Your task to perform on an android device: Open eBay Image 0: 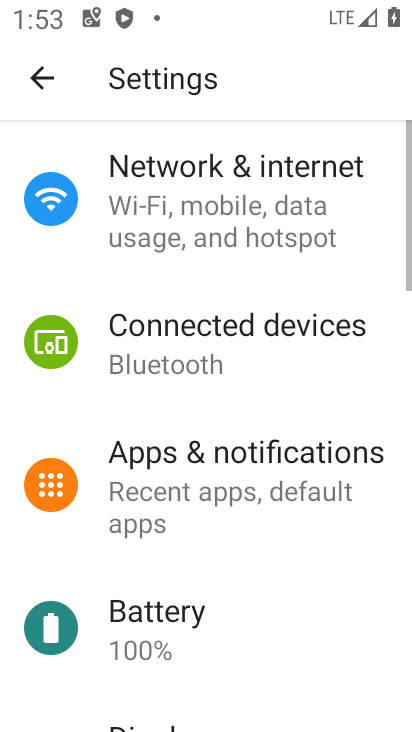
Step 0: press home button
Your task to perform on an android device: Open eBay Image 1: 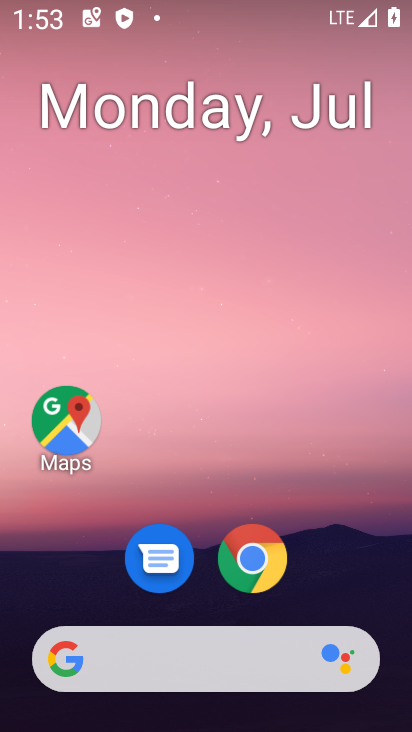
Step 1: drag from (367, 586) to (381, 109)
Your task to perform on an android device: Open eBay Image 2: 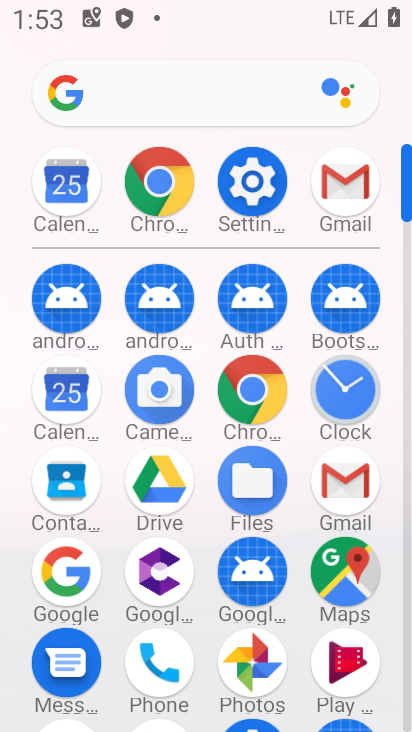
Step 2: click (263, 380)
Your task to perform on an android device: Open eBay Image 3: 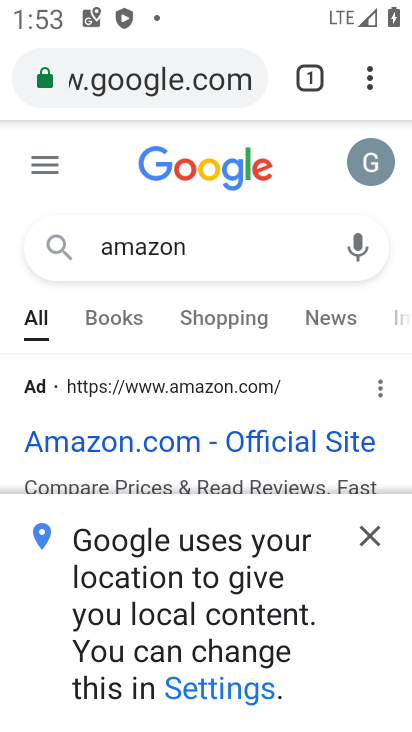
Step 3: click (199, 81)
Your task to perform on an android device: Open eBay Image 4: 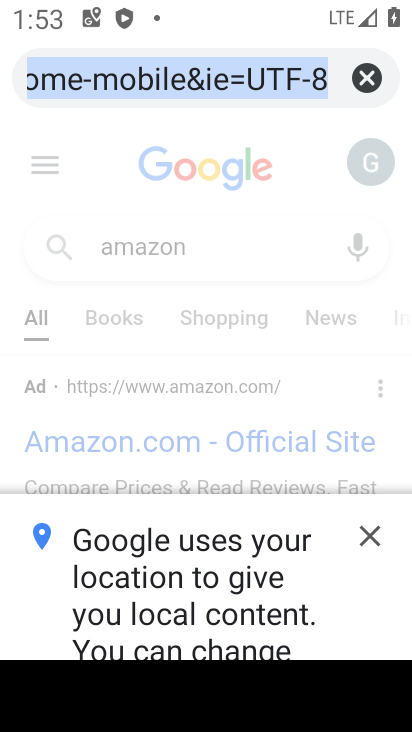
Step 4: type "ebay"
Your task to perform on an android device: Open eBay Image 5: 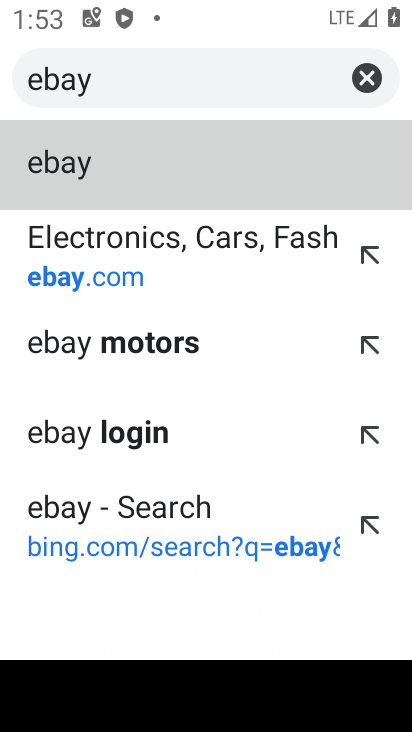
Step 5: click (147, 161)
Your task to perform on an android device: Open eBay Image 6: 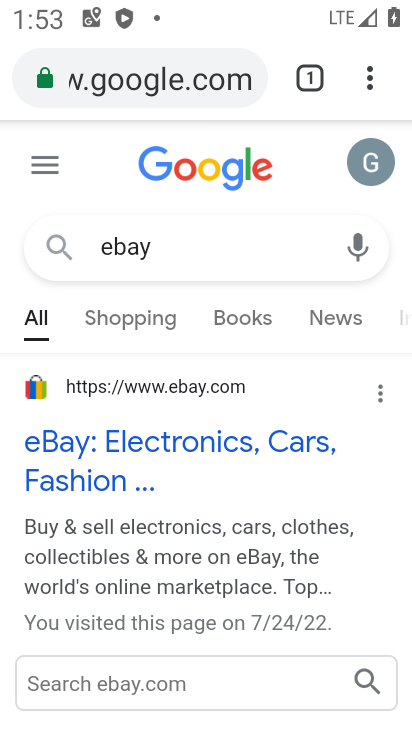
Step 6: task complete